Your task to perform on an android device: Open calendar and show me the first week of next month Image 0: 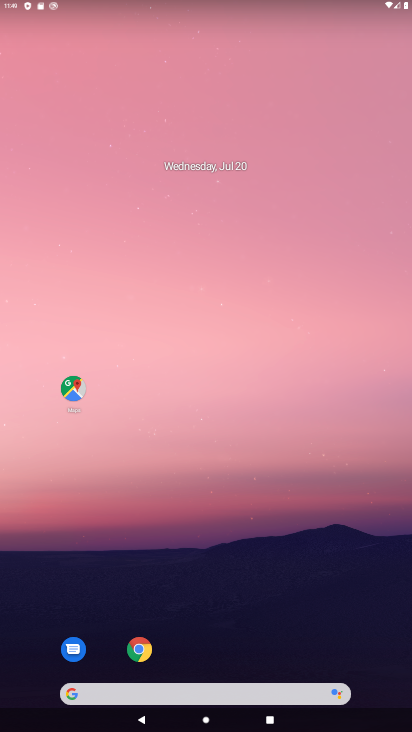
Step 0: click (289, 645)
Your task to perform on an android device: Open calendar and show me the first week of next month Image 1: 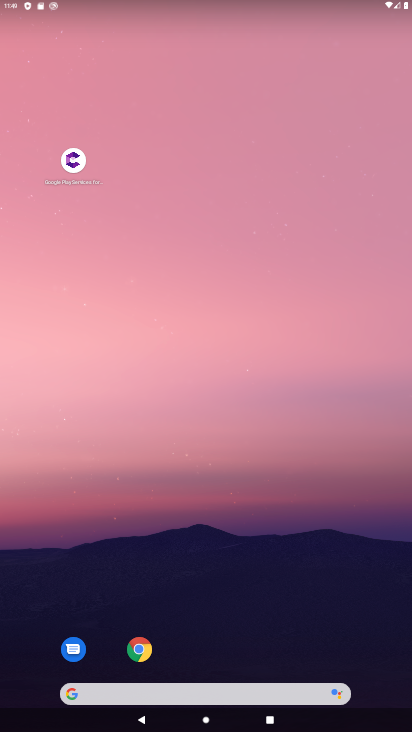
Step 1: drag from (289, 645) to (271, 40)
Your task to perform on an android device: Open calendar and show me the first week of next month Image 2: 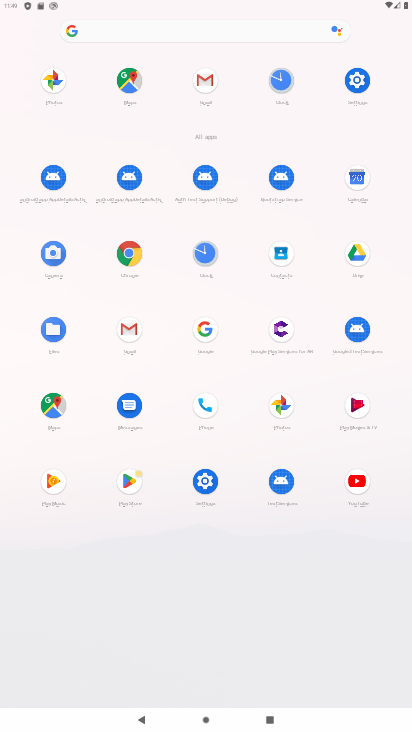
Step 2: click (361, 182)
Your task to perform on an android device: Open calendar and show me the first week of next month Image 3: 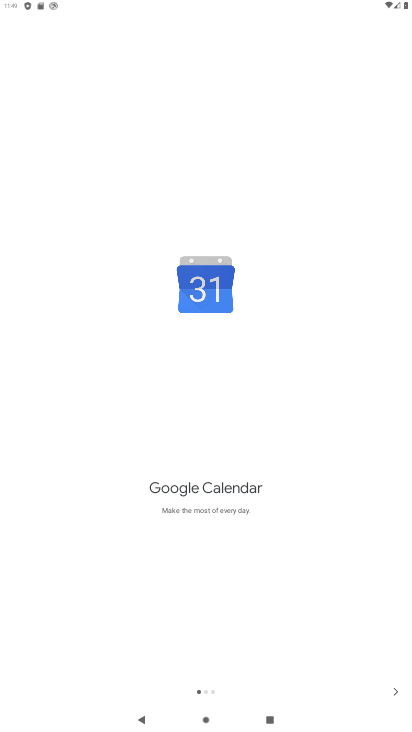
Step 3: click (400, 693)
Your task to perform on an android device: Open calendar and show me the first week of next month Image 4: 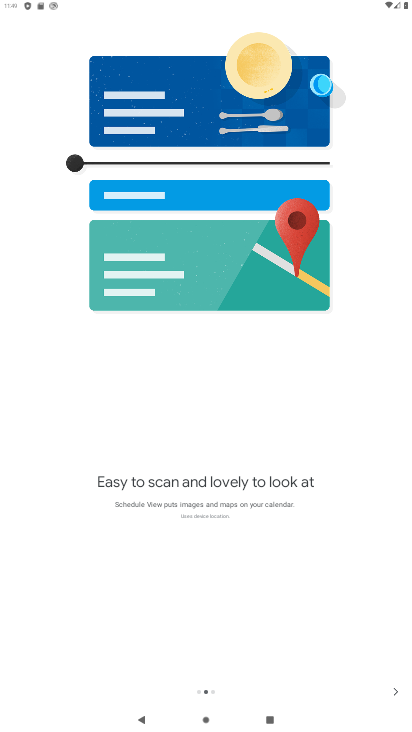
Step 4: click (400, 693)
Your task to perform on an android device: Open calendar and show me the first week of next month Image 5: 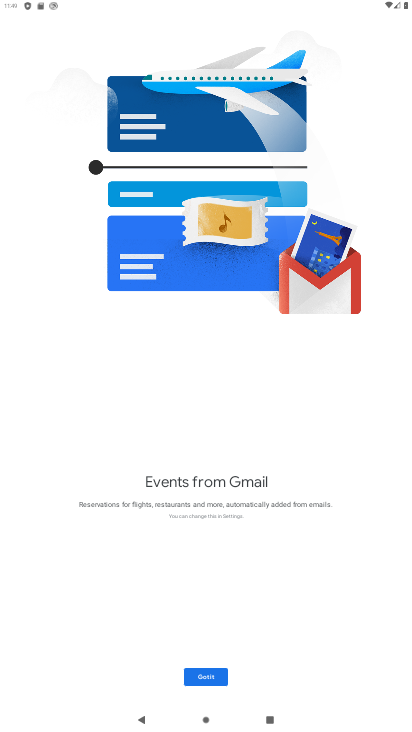
Step 5: click (400, 693)
Your task to perform on an android device: Open calendar and show me the first week of next month Image 6: 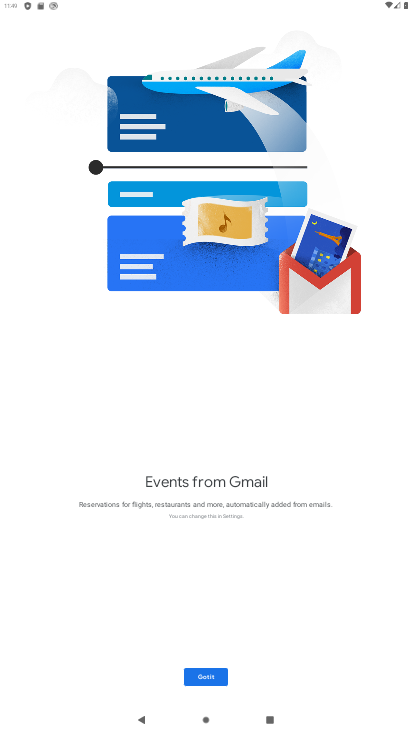
Step 6: click (199, 681)
Your task to perform on an android device: Open calendar and show me the first week of next month Image 7: 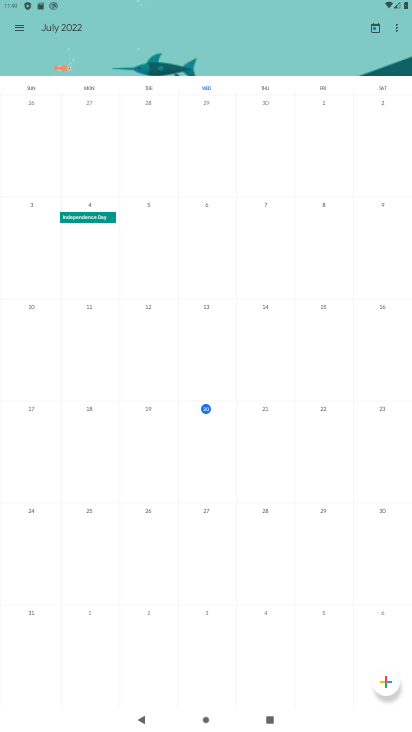
Step 7: drag from (400, 432) to (41, 347)
Your task to perform on an android device: Open calendar and show me the first week of next month Image 8: 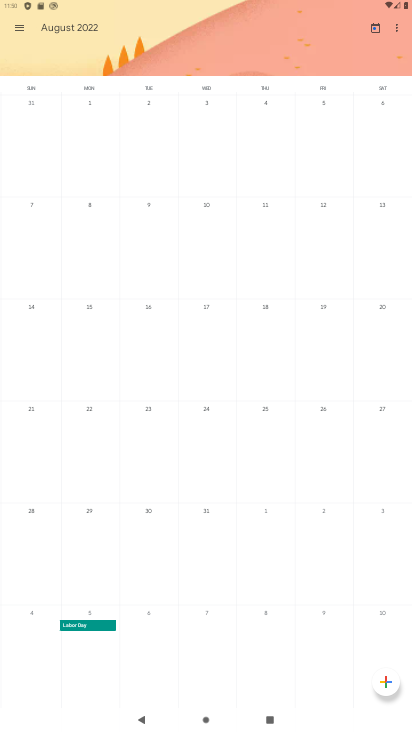
Step 8: click (79, 127)
Your task to perform on an android device: Open calendar and show me the first week of next month Image 9: 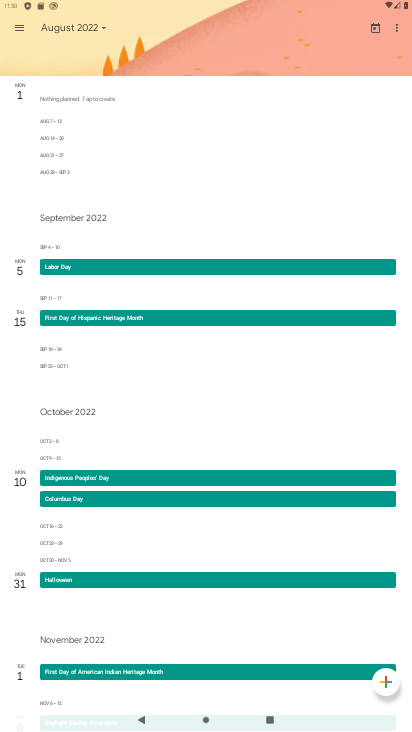
Step 9: task complete